Your task to perform on an android device: Open Google Chrome and open the bookmarks view Image 0: 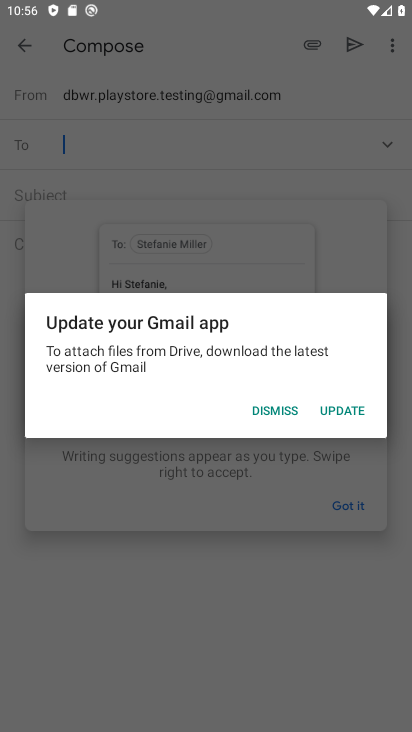
Step 0: press home button
Your task to perform on an android device: Open Google Chrome and open the bookmarks view Image 1: 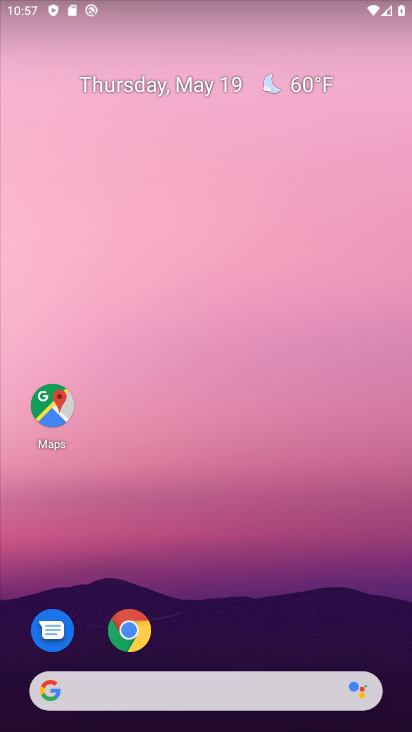
Step 1: drag from (186, 261) to (168, 178)
Your task to perform on an android device: Open Google Chrome and open the bookmarks view Image 2: 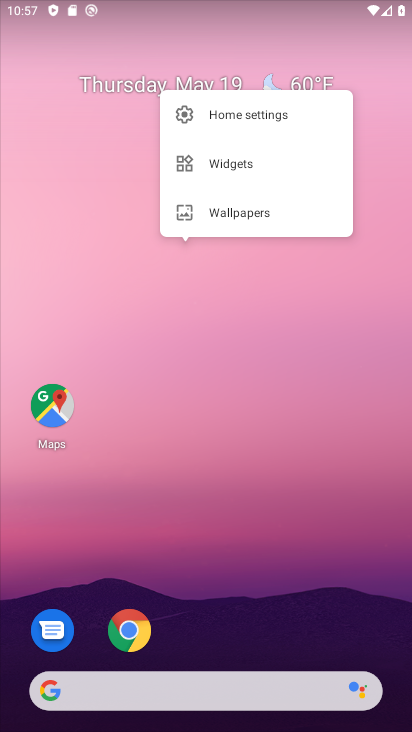
Step 2: click (240, 629)
Your task to perform on an android device: Open Google Chrome and open the bookmarks view Image 3: 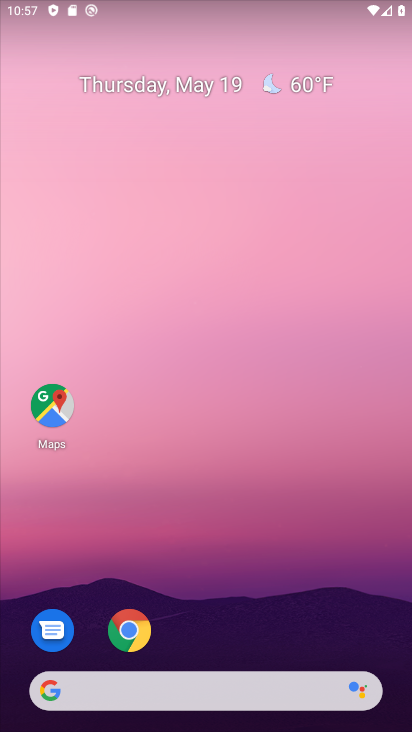
Step 3: click (143, 636)
Your task to perform on an android device: Open Google Chrome and open the bookmarks view Image 4: 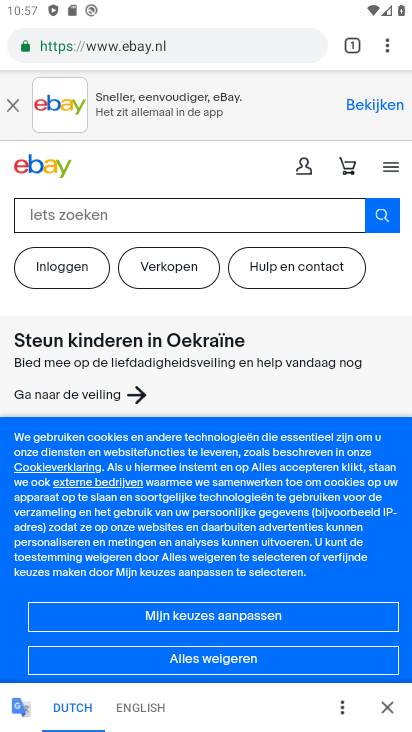
Step 4: click (386, 61)
Your task to perform on an android device: Open Google Chrome and open the bookmarks view Image 5: 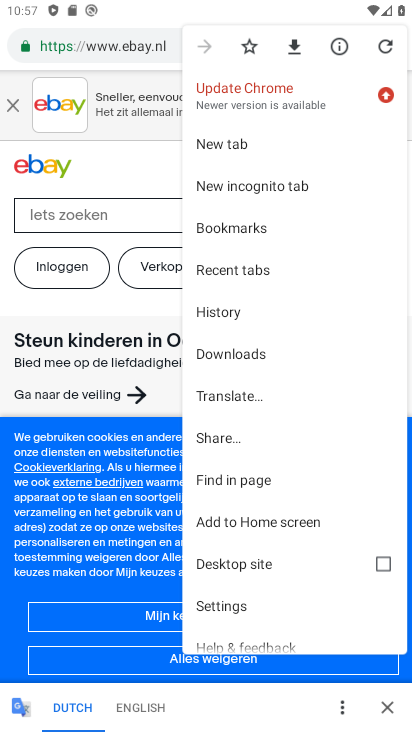
Step 5: click (268, 230)
Your task to perform on an android device: Open Google Chrome and open the bookmarks view Image 6: 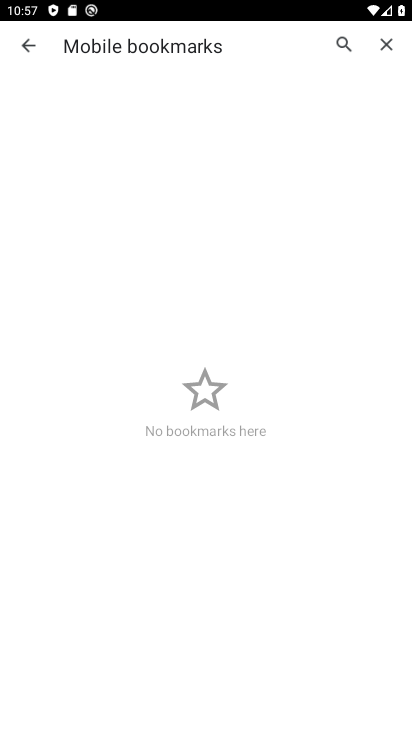
Step 6: task complete